Your task to perform on an android device: Open calendar and show me the third week of next month Image 0: 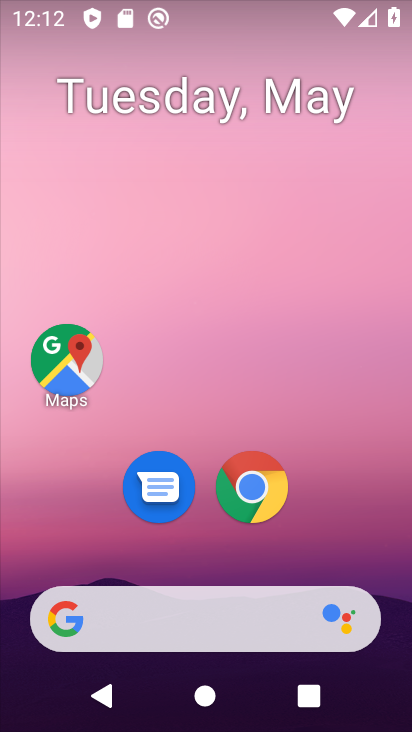
Step 0: drag from (320, 523) to (258, 11)
Your task to perform on an android device: Open calendar and show me the third week of next month Image 1: 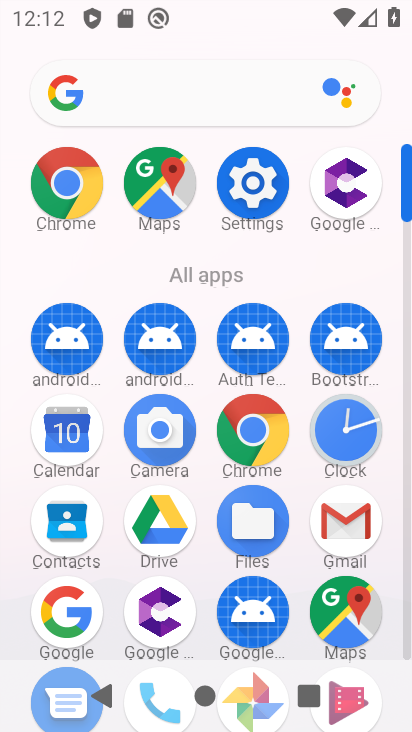
Step 1: click (65, 427)
Your task to perform on an android device: Open calendar and show me the third week of next month Image 2: 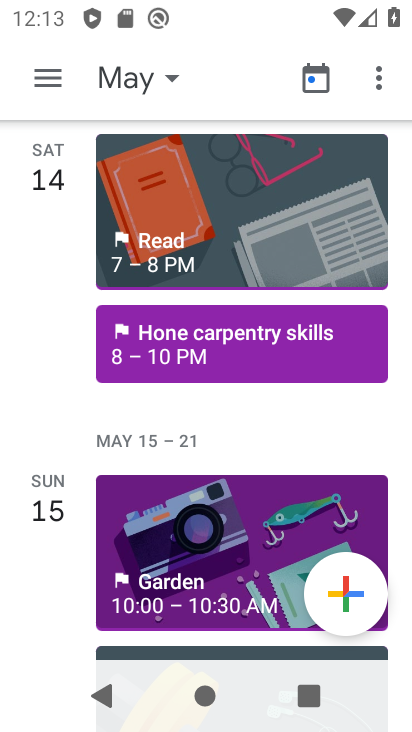
Step 2: click (48, 68)
Your task to perform on an android device: Open calendar and show me the third week of next month Image 3: 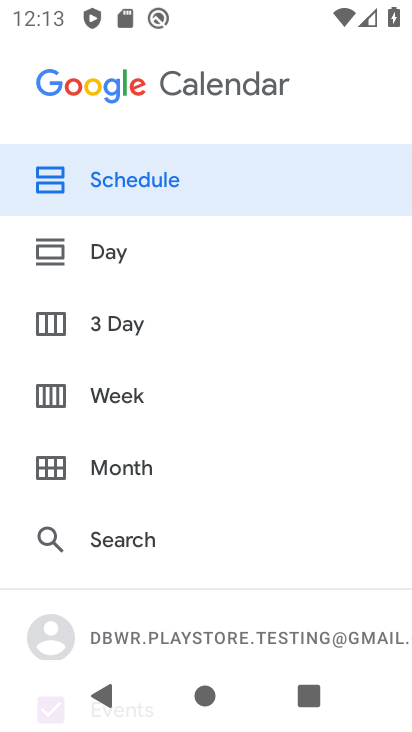
Step 3: click (141, 468)
Your task to perform on an android device: Open calendar and show me the third week of next month Image 4: 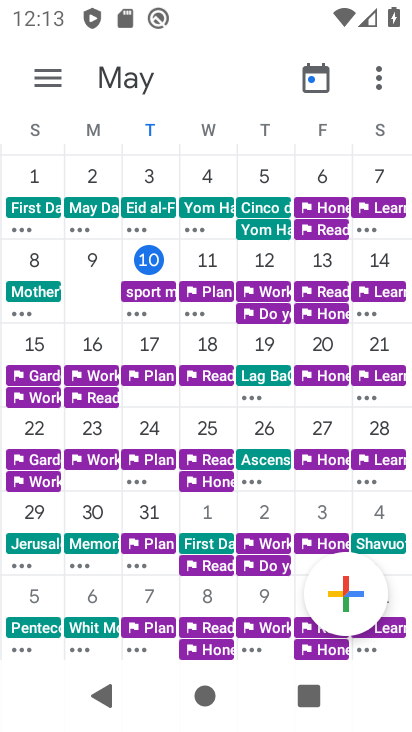
Step 4: drag from (262, 373) to (3, 269)
Your task to perform on an android device: Open calendar and show me the third week of next month Image 5: 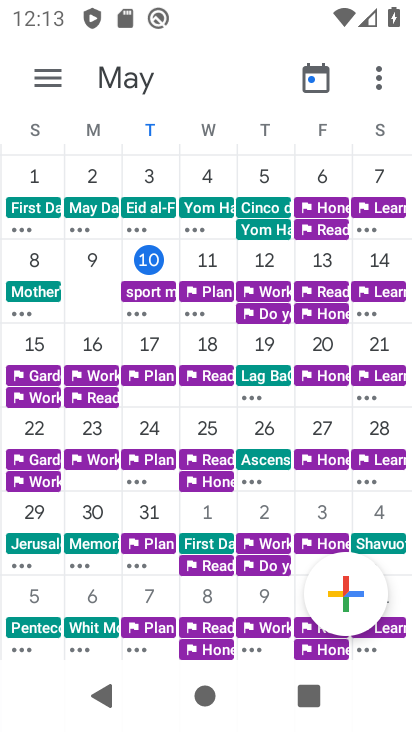
Step 5: drag from (391, 459) to (10, 334)
Your task to perform on an android device: Open calendar and show me the third week of next month Image 6: 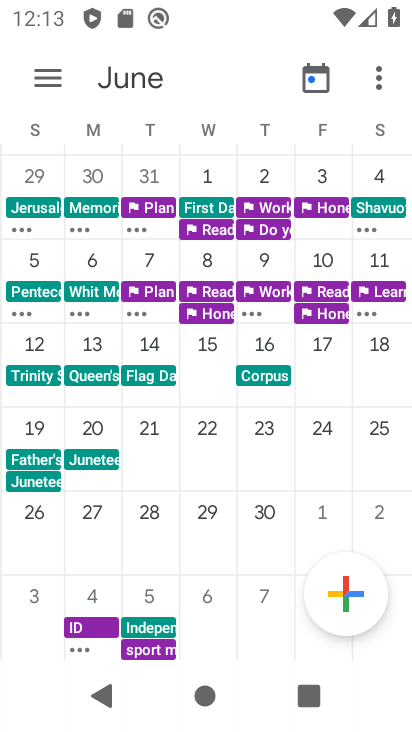
Step 6: click (41, 342)
Your task to perform on an android device: Open calendar and show me the third week of next month Image 7: 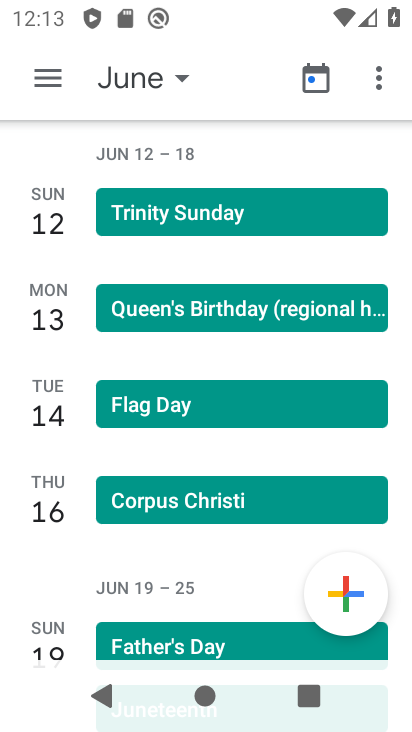
Step 7: click (47, 73)
Your task to perform on an android device: Open calendar and show me the third week of next month Image 8: 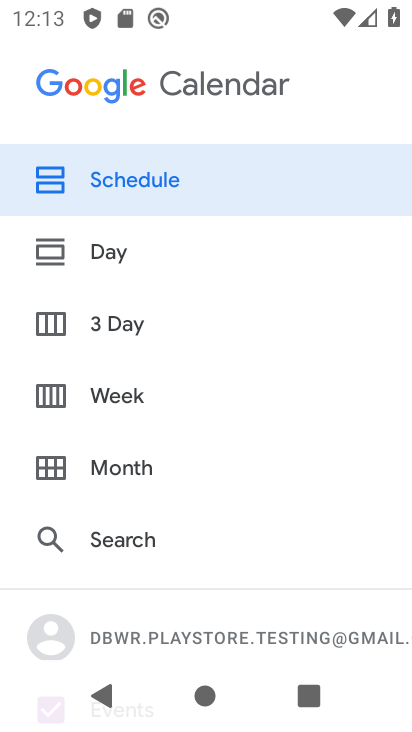
Step 8: click (94, 383)
Your task to perform on an android device: Open calendar and show me the third week of next month Image 9: 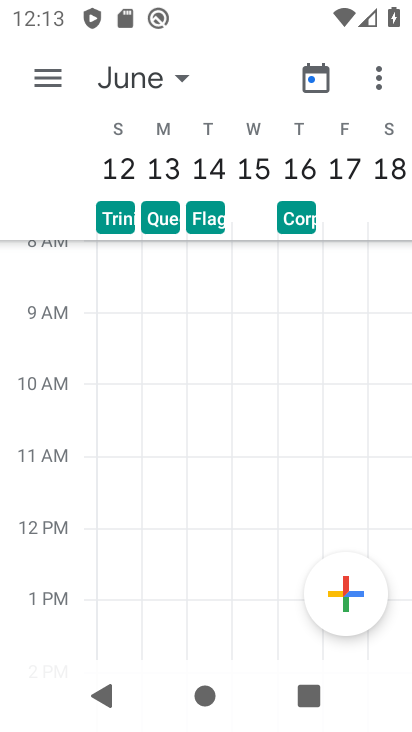
Step 9: task complete